Your task to perform on an android device: turn off javascript in the chrome app Image 0: 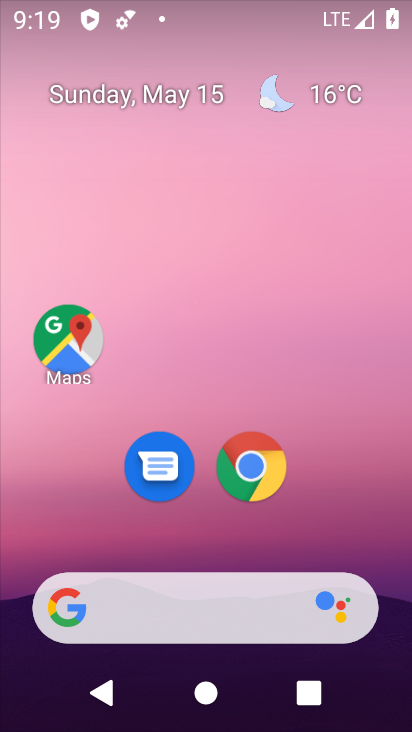
Step 0: click (268, 483)
Your task to perform on an android device: turn off javascript in the chrome app Image 1: 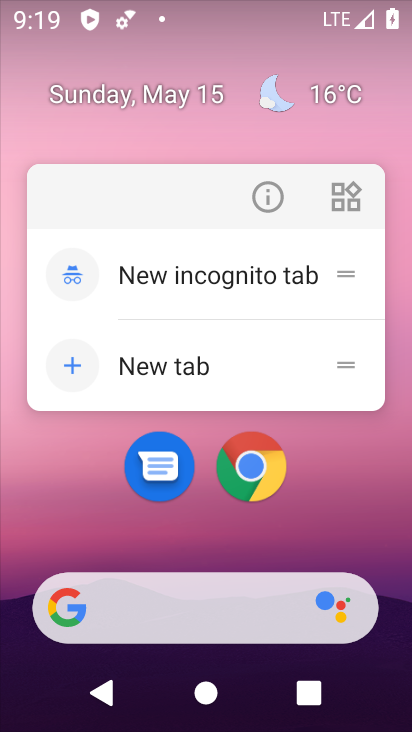
Step 1: click (268, 482)
Your task to perform on an android device: turn off javascript in the chrome app Image 2: 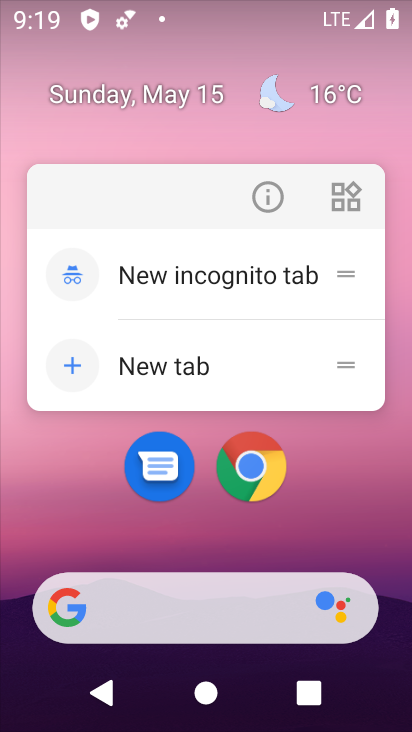
Step 2: click (269, 474)
Your task to perform on an android device: turn off javascript in the chrome app Image 3: 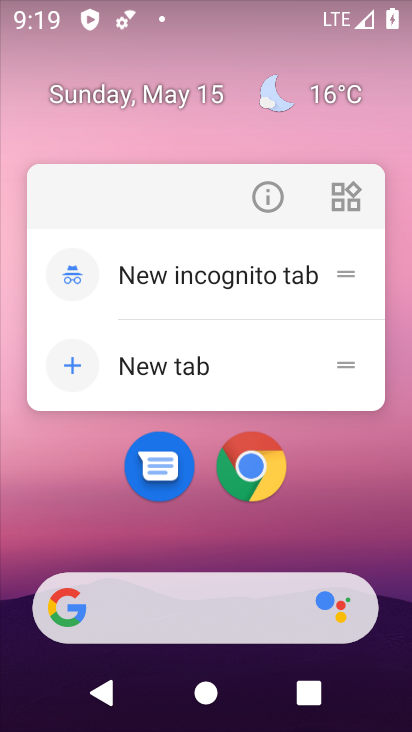
Step 3: click (262, 467)
Your task to perform on an android device: turn off javascript in the chrome app Image 4: 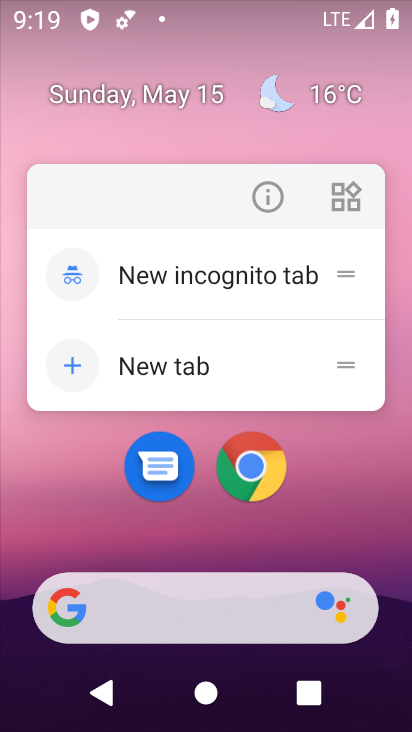
Step 4: click (252, 472)
Your task to perform on an android device: turn off javascript in the chrome app Image 5: 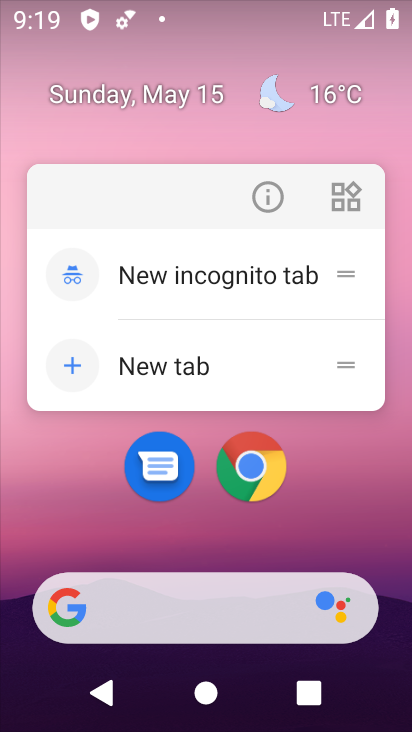
Step 5: click (260, 489)
Your task to perform on an android device: turn off javascript in the chrome app Image 6: 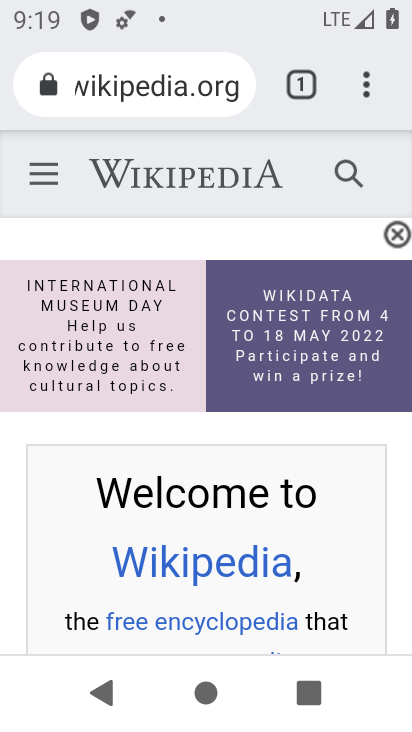
Step 6: drag from (370, 101) to (281, 533)
Your task to perform on an android device: turn off javascript in the chrome app Image 7: 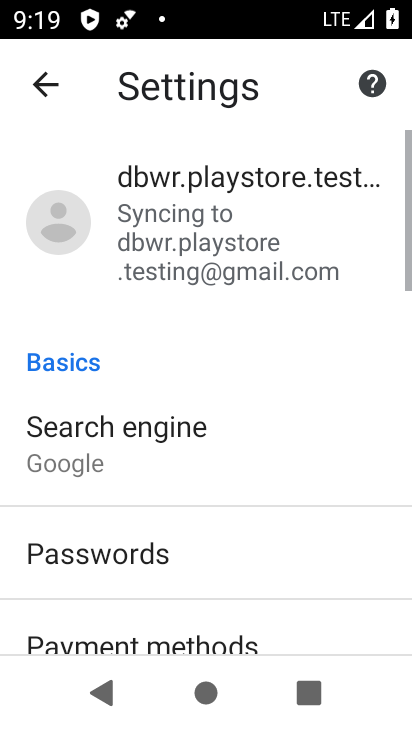
Step 7: drag from (230, 584) to (294, 189)
Your task to perform on an android device: turn off javascript in the chrome app Image 8: 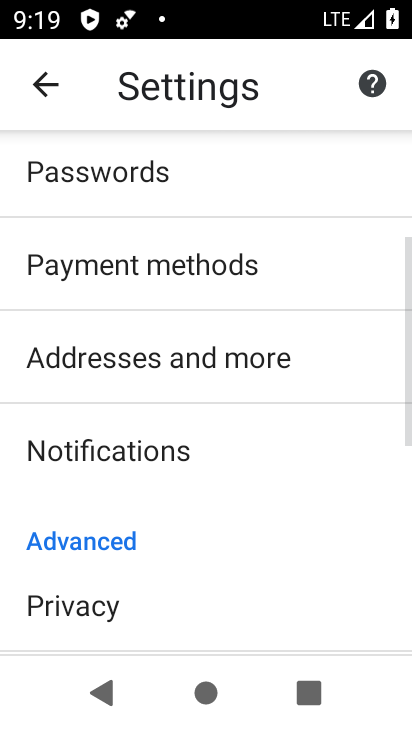
Step 8: drag from (131, 557) to (260, 226)
Your task to perform on an android device: turn off javascript in the chrome app Image 9: 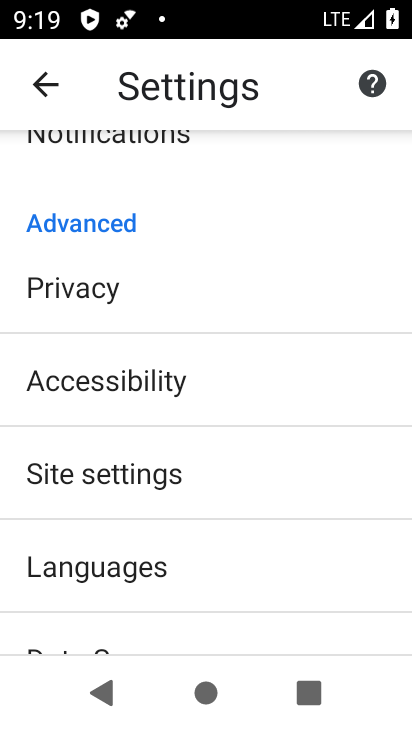
Step 9: click (176, 487)
Your task to perform on an android device: turn off javascript in the chrome app Image 10: 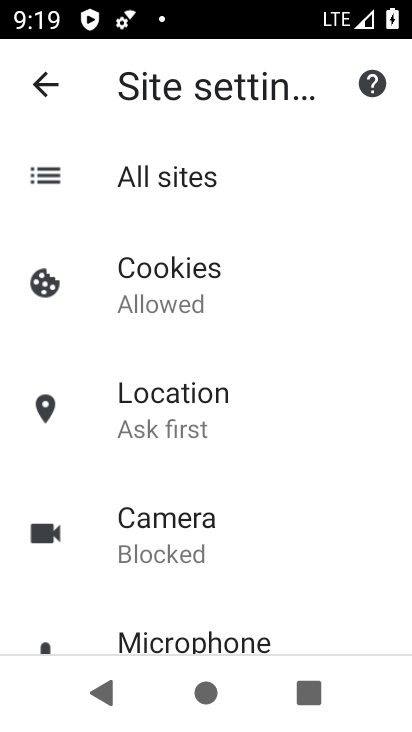
Step 10: drag from (185, 585) to (283, 229)
Your task to perform on an android device: turn off javascript in the chrome app Image 11: 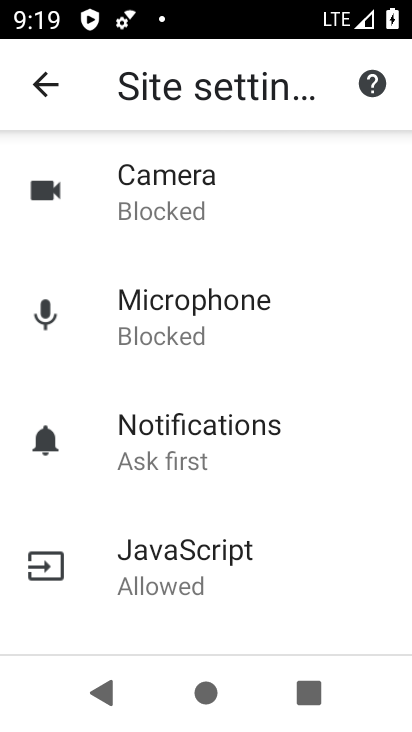
Step 11: click (234, 561)
Your task to perform on an android device: turn off javascript in the chrome app Image 12: 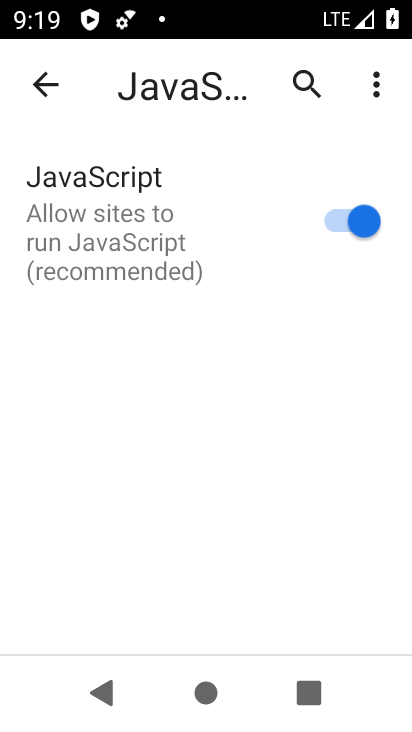
Step 12: click (339, 220)
Your task to perform on an android device: turn off javascript in the chrome app Image 13: 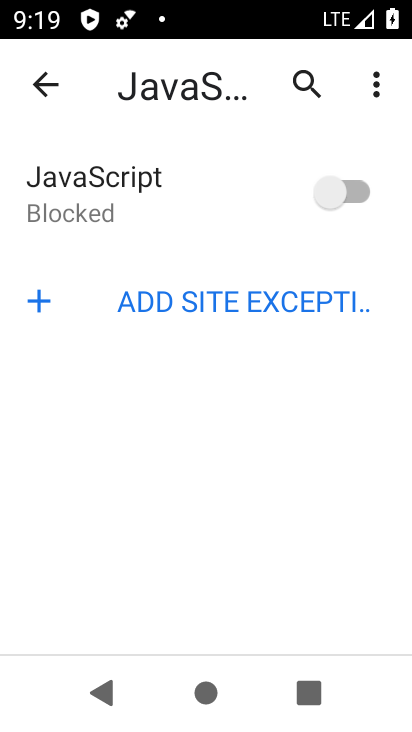
Step 13: task complete